Your task to perform on an android device: turn off wifi Image 0: 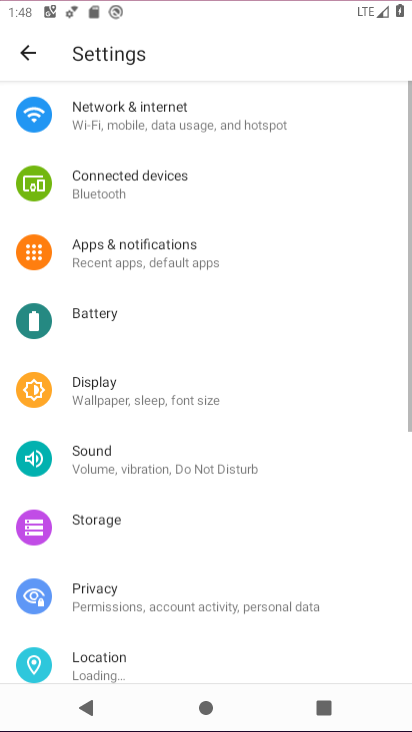
Step 0: drag from (221, 581) to (230, 243)
Your task to perform on an android device: turn off wifi Image 1: 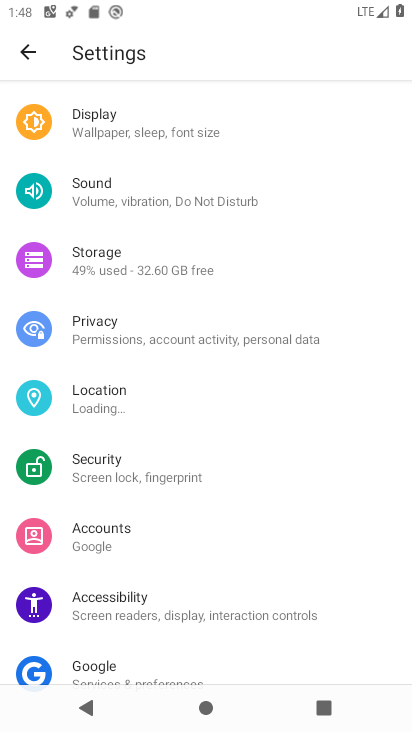
Step 1: press home button
Your task to perform on an android device: turn off wifi Image 2: 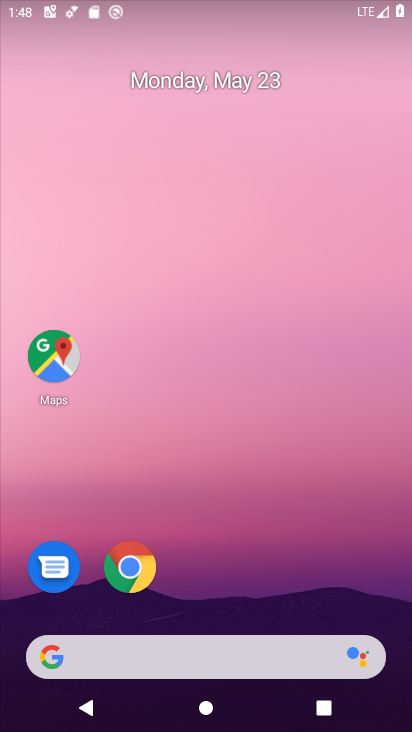
Step 2: drag from (220, 595) to (230, 281)
Your task to perform on an android device: turn off wifi Image 3: 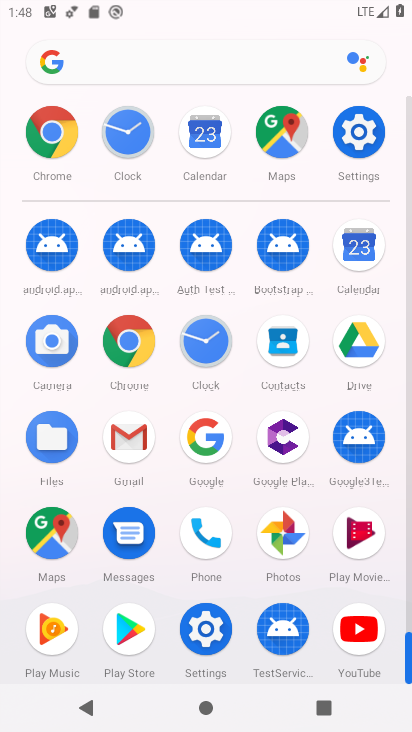
Step 3: click (353, 149)
Your task to perform on an android device: turn off wifi Image 4: 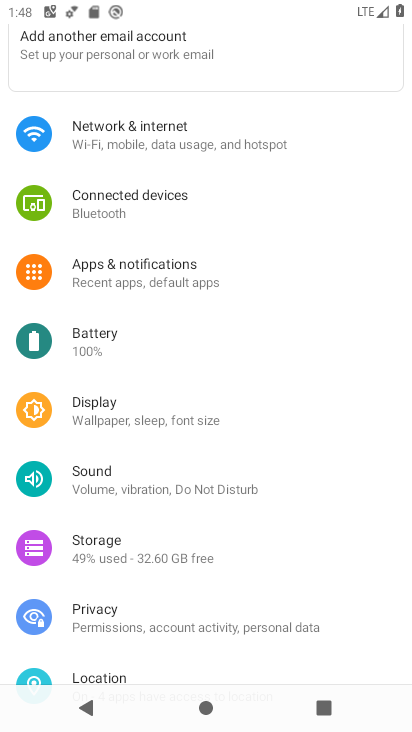
Step 4: click (189, 152)
Your task to perform on an android device: turn off wifi Image 5: 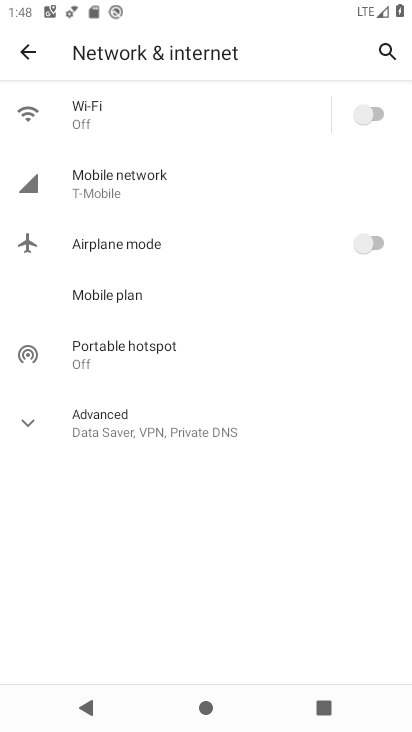
Step 5: task complete